Your task to perform on an android device: Check the weather Image 0: 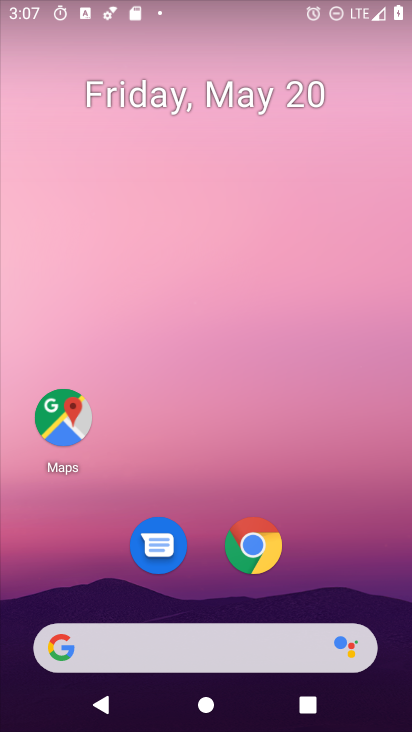
Step 0: drag from (326, 627) to (250, 0)
Your task to perform on an android device: Check the weather Image 1: 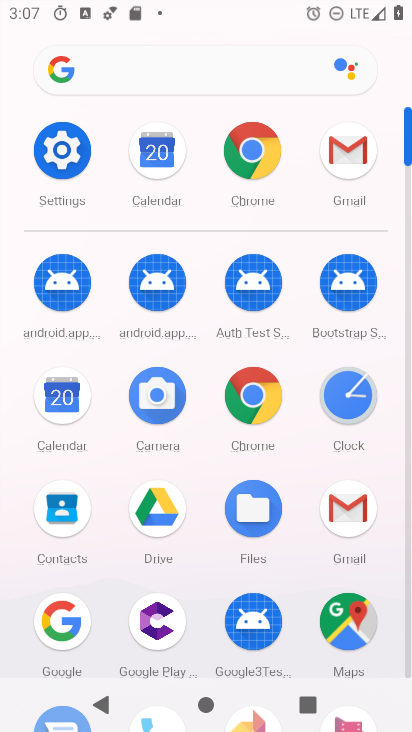
Step 1: click (254, 391)
Your task to perform on an android device: Check the weather Image 2: 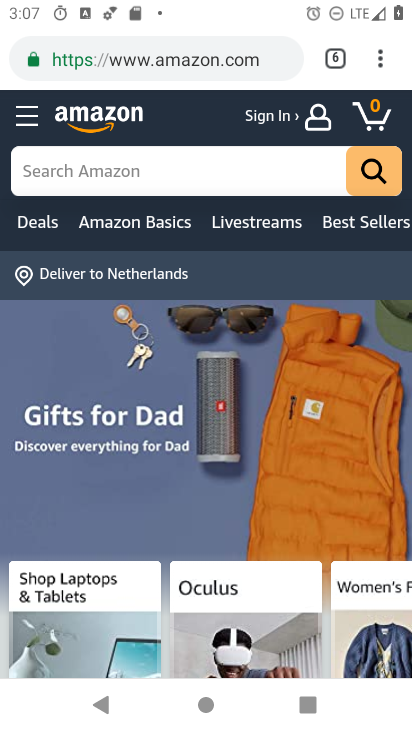
Step 2: press home button
Your task to perform on an android device: Check the weather Image 3: 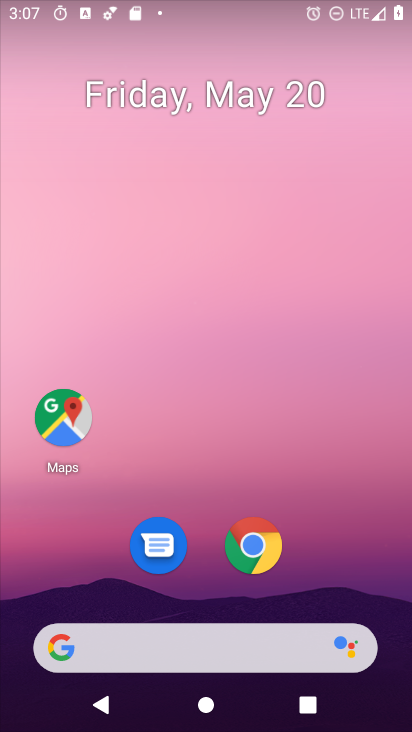
Step 3: drag from (100, 379) to (292, 382)
Your task to perform on an android device: Check the weather Image 4: 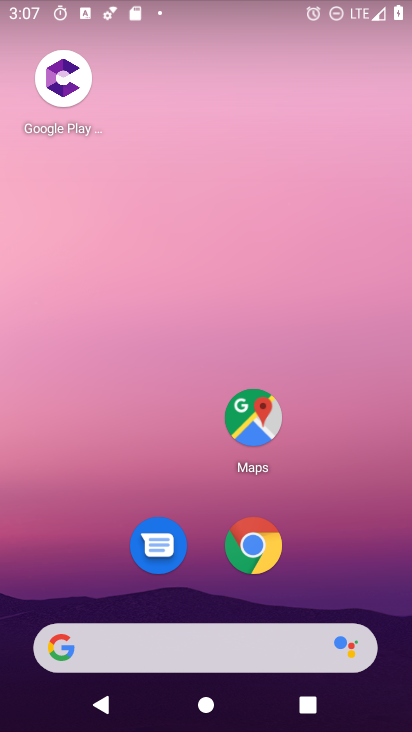
Step 4: press home button
Your task to perform on an android device: Check the weather Image 5: 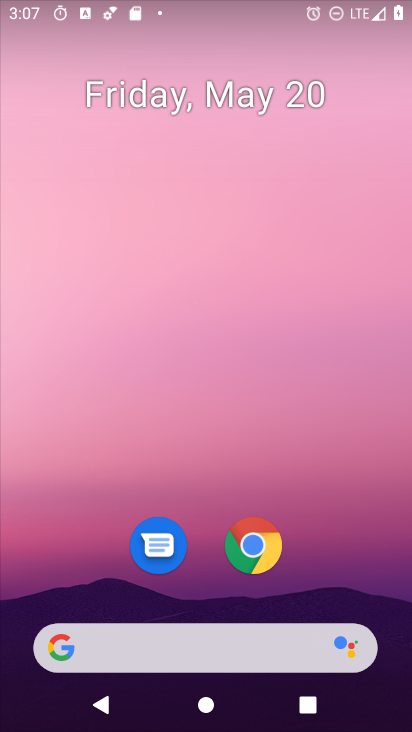
Step 5: click (207, 235)
Your task to perform on an android device: Check the weather Image 6: 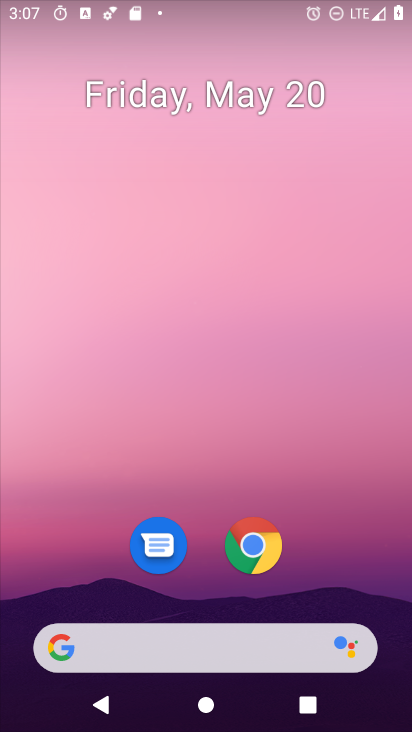
Step 6: drag from (44, 266) to (410, 268)
Your task to perform on an android device: Check the weather Image 7: 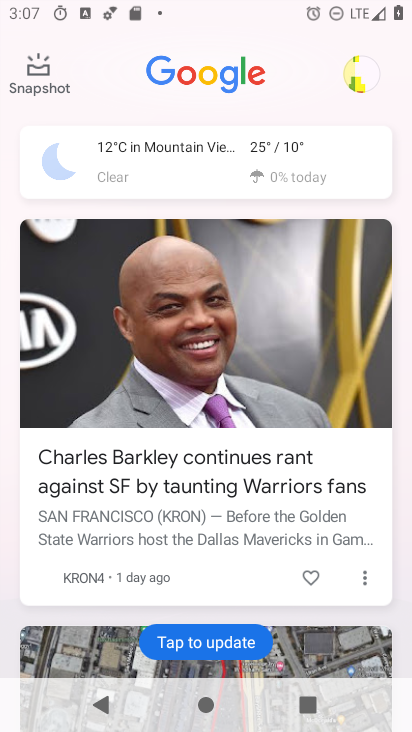
Step 7: click (193, 164)
Your task to perform on an android device: Check the weather Image 8: 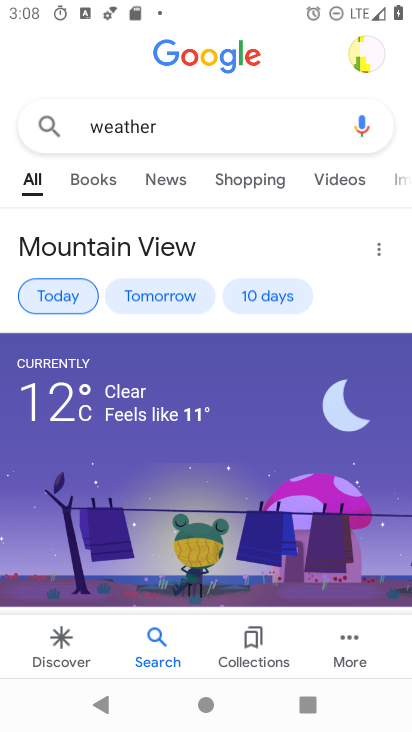
Step 8: task complete